Your task to perform on an android device: check google app version Image 0: 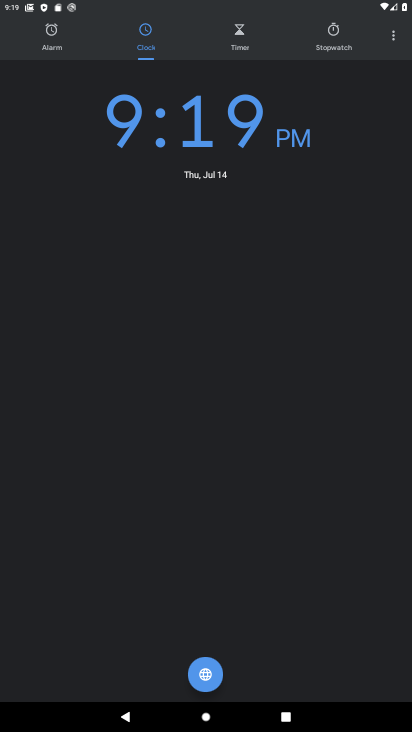
Step 0: press home button
Your task to perform on an android device: check google app version Image 1: 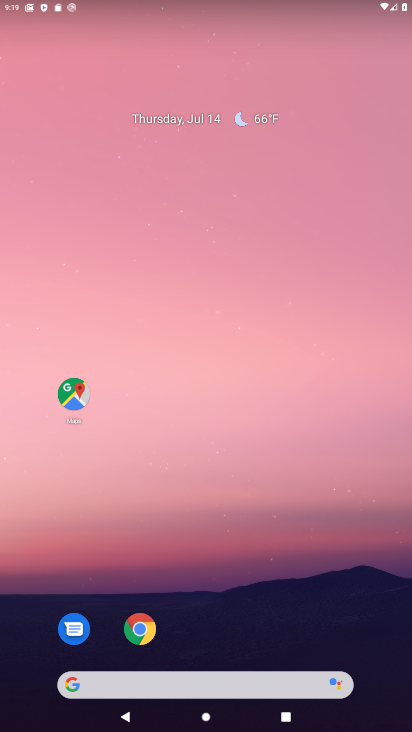
Step 1: drag from (257, 621) to (395, 310)
Your task to perform on an android device: check google app version Image 2: 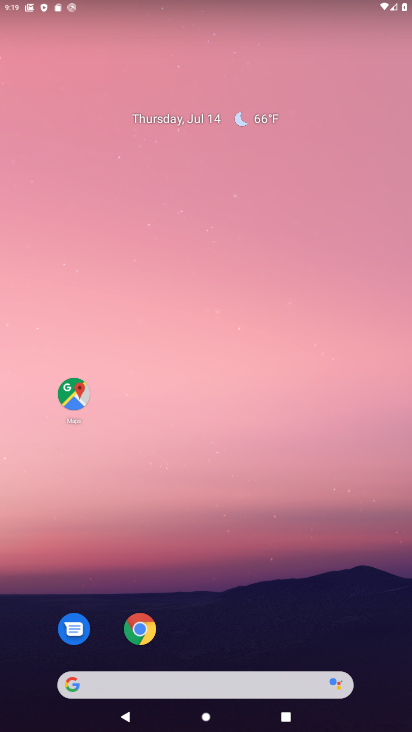
Step 2: drag from (298, 233) to (258, 23)
Your task to perform on an android device: check google app version Image 3: 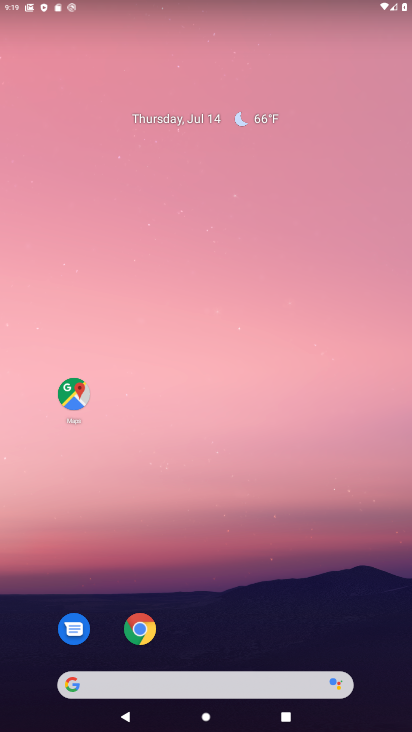
Step 3: drag from (263, 582) to (334, 7)
Your task to perform on an android device: check google app version Image 4: 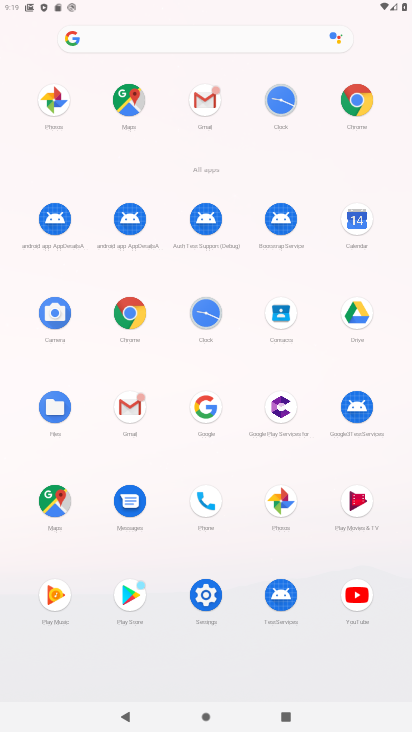
Step 4: click (202, 408)
Your task to perform on an android device: check google app version Image 5: 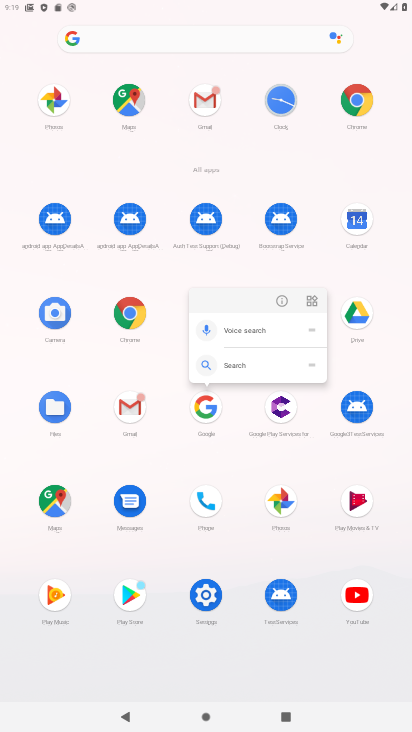
Step 5: click (283, 303)
Your task to perform on an android device: check google app version Image 6: 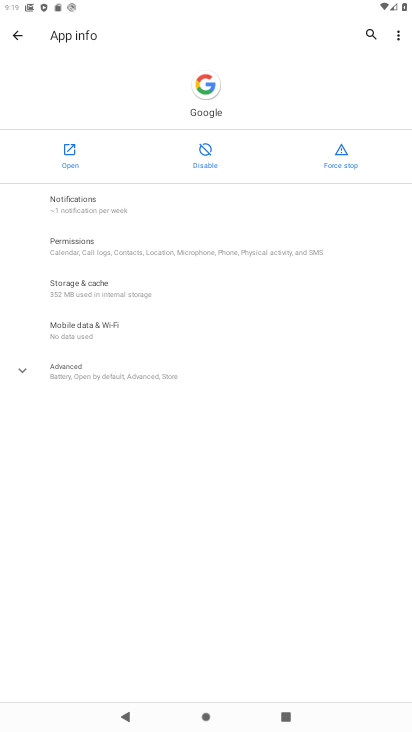
Step 6: click (66, 361)
Your task to perform on an android device: check google app version Image 7: 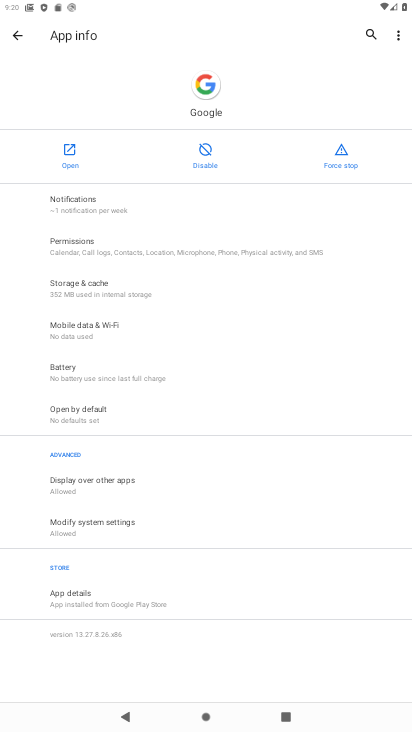
Step 7: task complete